Your task to perform on an android device: toggle data saver in the chrome app Image 0: 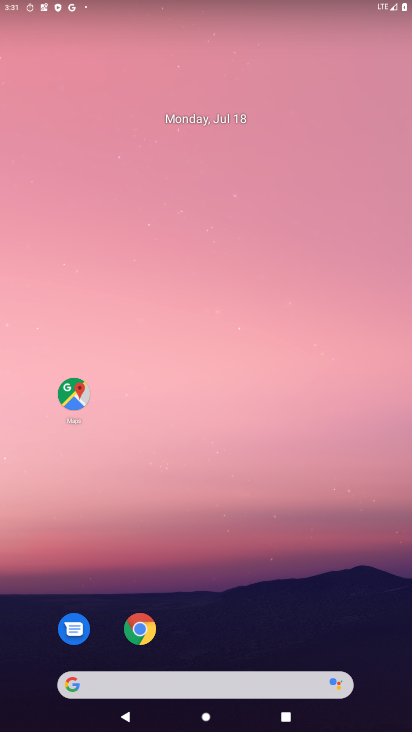
Step 0: drag from (201, 667) to (115, 90)
Your task to perform on an android device: toggle data saver in the chrome app Image 1: 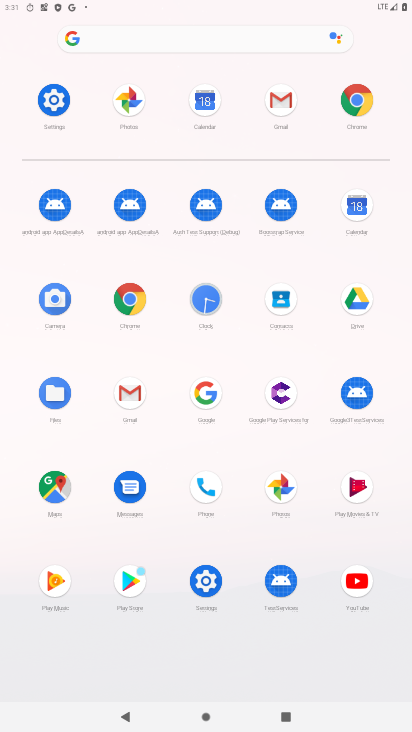
Step 1: click (129, 308)
Your task to perform on an android device: toggle data saver in the chrome app Image 2: 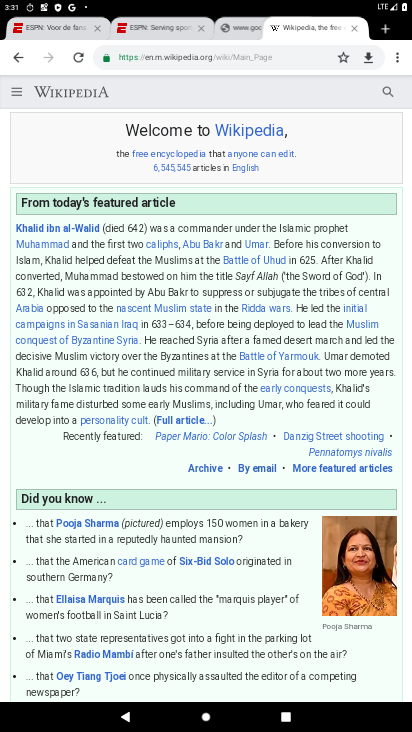
Step 2: drag from (392, 51) to (276, 409)
Your task to perform on an android device: toggle data saver in the chrome app Image 3: 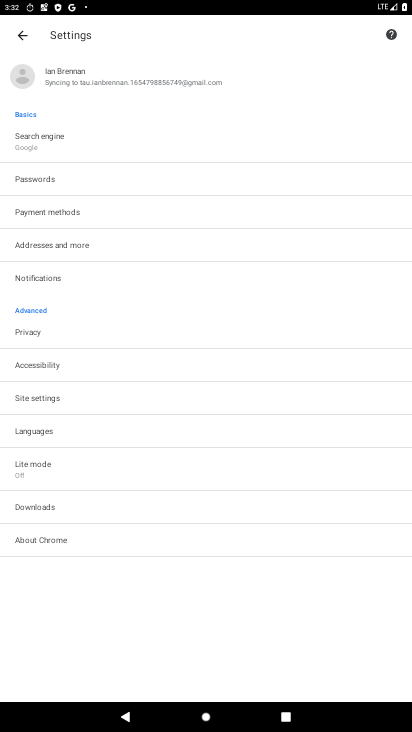
Step 3: click (38, 456)
Your task to perform on an android device: toggle data saver in the chrome app Image 4: 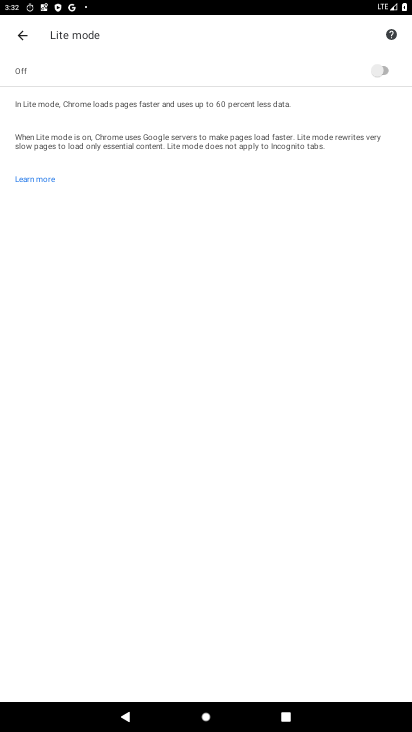
Step 4: click (366, 64)
Your task to perform on an android device: toggle data saver in the chrome app Image 5: 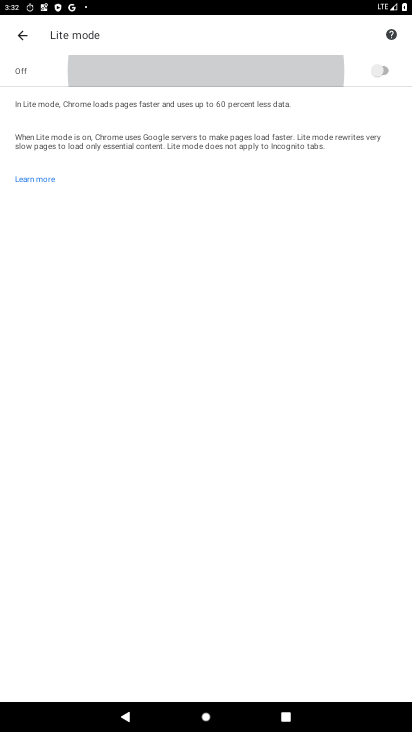
Step 5: task complete